Your task to perform on an android device: open a bookmark in the chrome app Image 0: 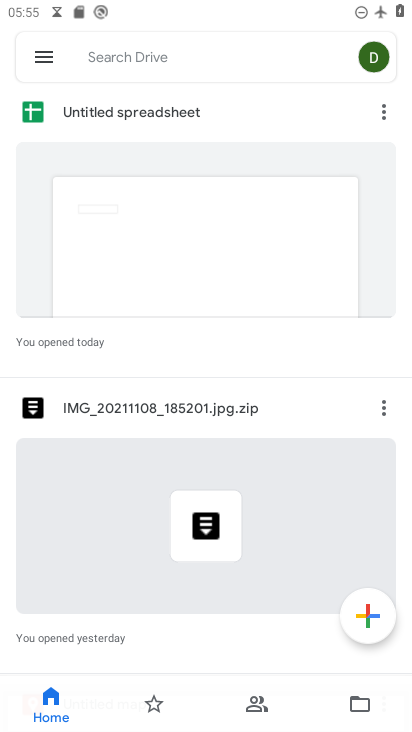
Step 0: press home button
Your task to perform on an android device: open a bookmark in the chrome app Image 1: 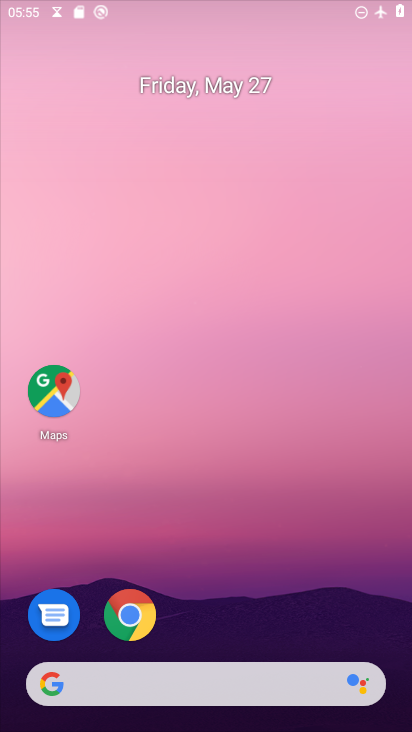
Step 1: drag from (266, 543) to (256, 23)
Your task to perform on an android device: open a bookmark in the chrome app Image 2: 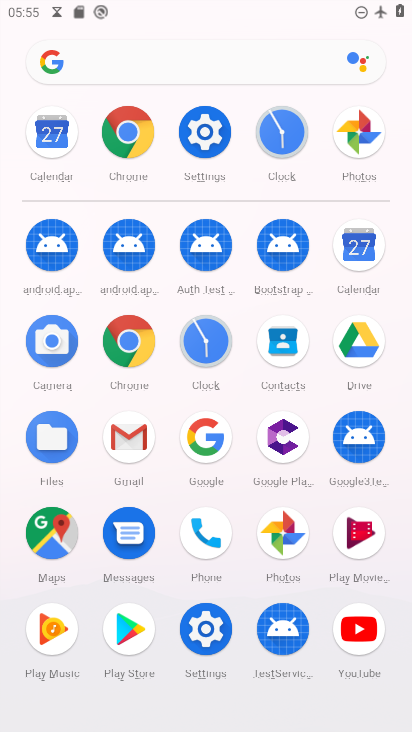
Step 2: click (140, 311)
Your task to perform on an android device: open a bookmark in the chrome app Image 3: 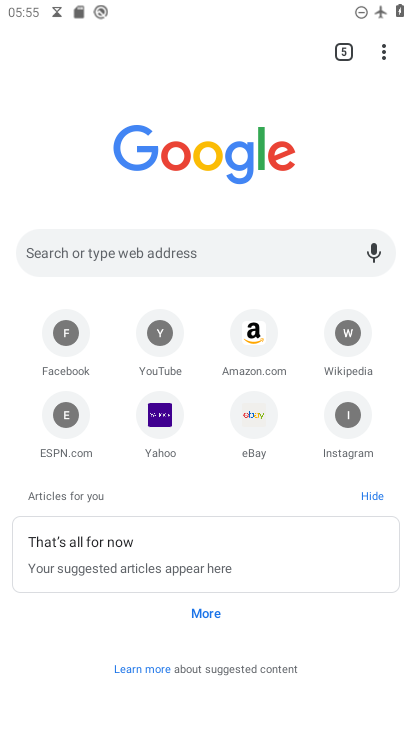
Step 3: click (382, 51)
Your task to perform on an android device: open a bookmark in the chrome app Image 4: 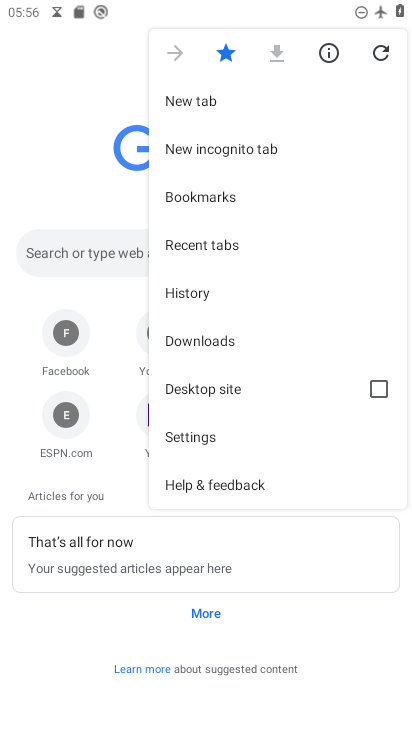
Step 4: click (222, 201)
Your task to perform on an android device: open a bookmark in the chrome app Image 5: 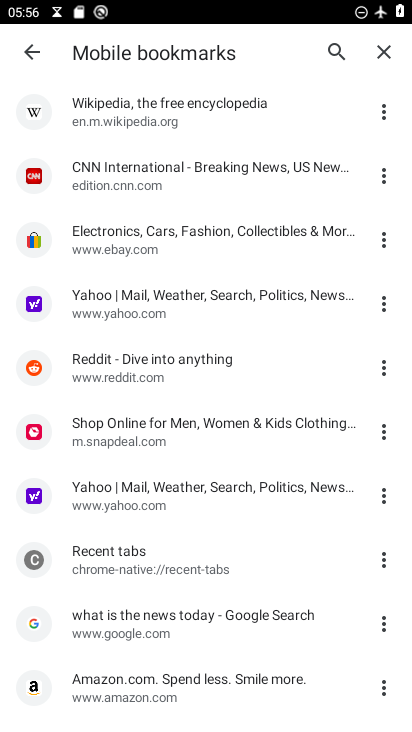
Step 5: click (159, 228)
Your task to perform on an android device: open a bookmark in the chrome app Image 6: 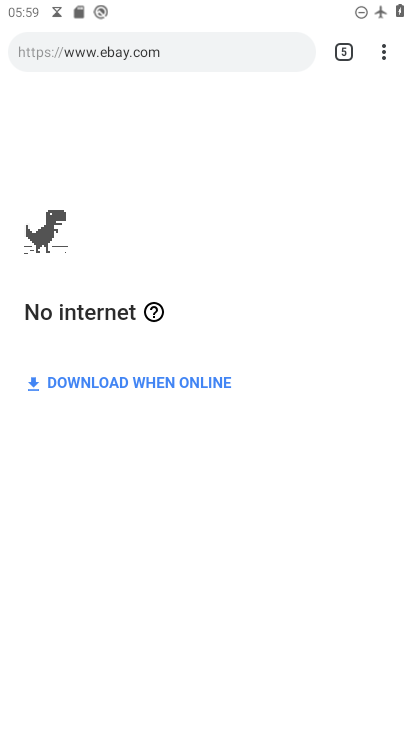
Step 6: task complete